Your task to perform on an android device: turn notification dots on Image 0: 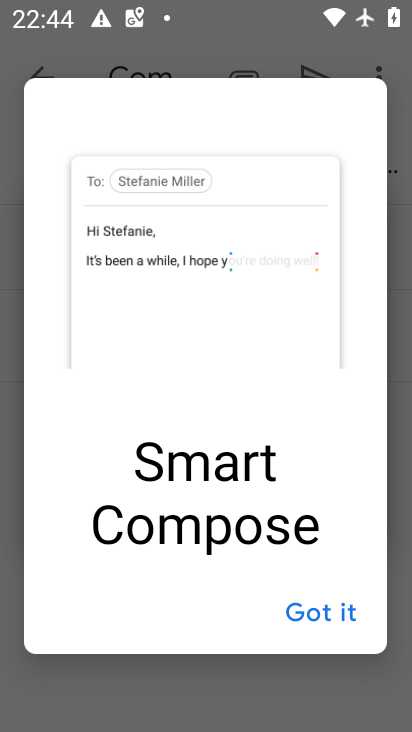
Step 0: press home button
Your task to perform on an android device: turn notification dots on Image 1: 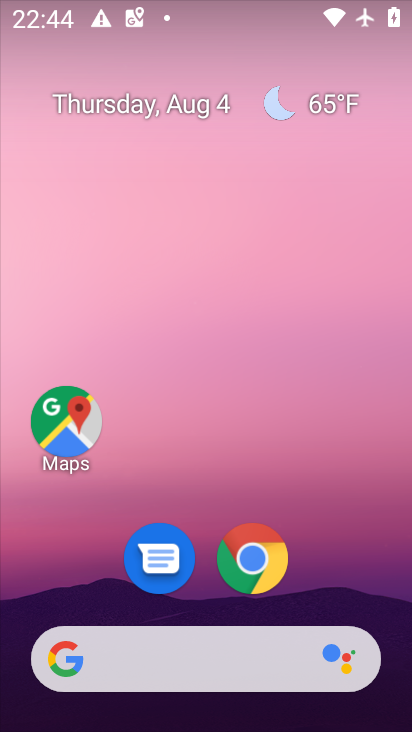
Step 1: drag from (363, 515) to (342, 70)
Your task to perform on an android device: turn notification dots on Image 2: 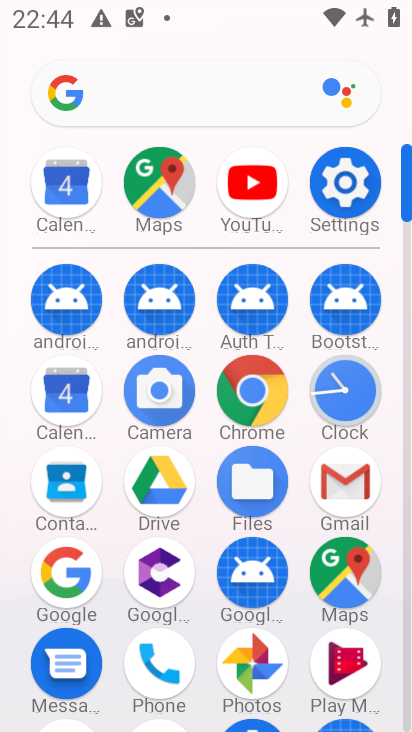
Step 2: click (359, 172)
Your task to perform on an android device: turn notification dots on Image 3: 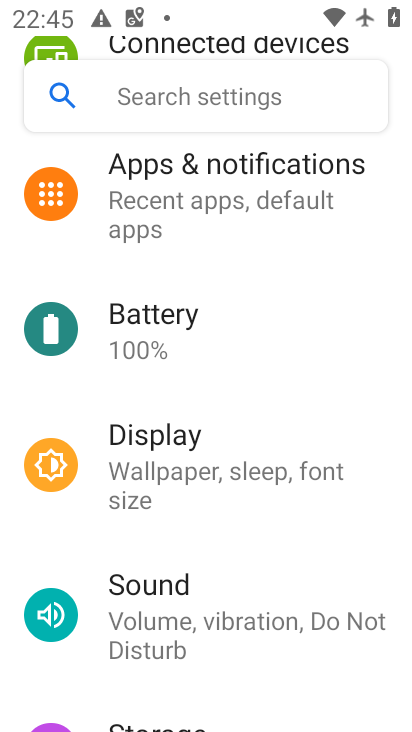
Step 3: drag from (270, 421) to (283, 609)
Your task to perform on an android device: turn notification dots on Image 4: 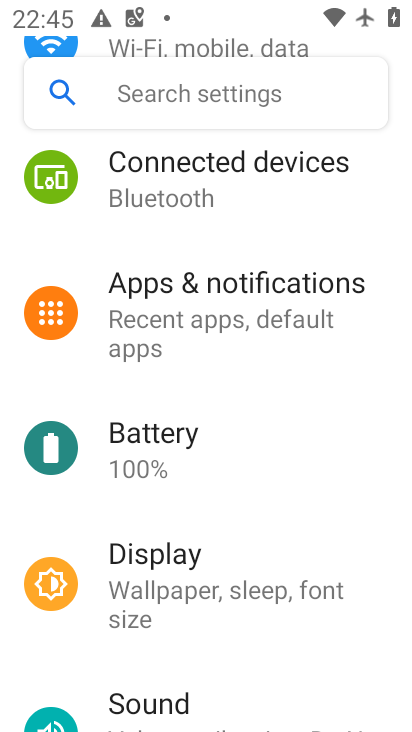
Step 4: click (286, 324)
Your task to perform on an android device: turn notification dots on Image 5: 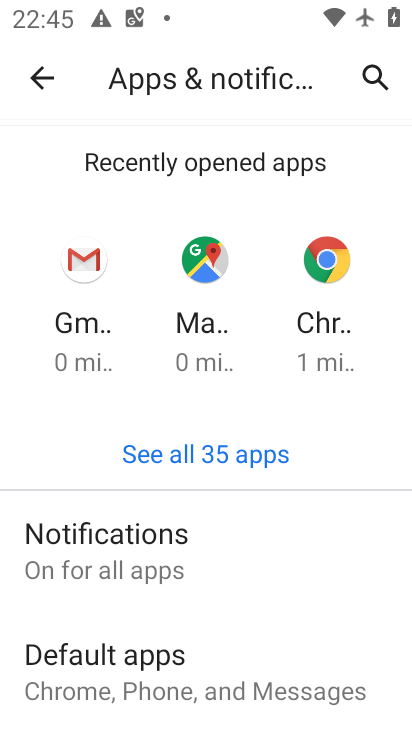
Step 5: click (163, 540)
Your task to perform on an android device: turn notification dots on Image 6: 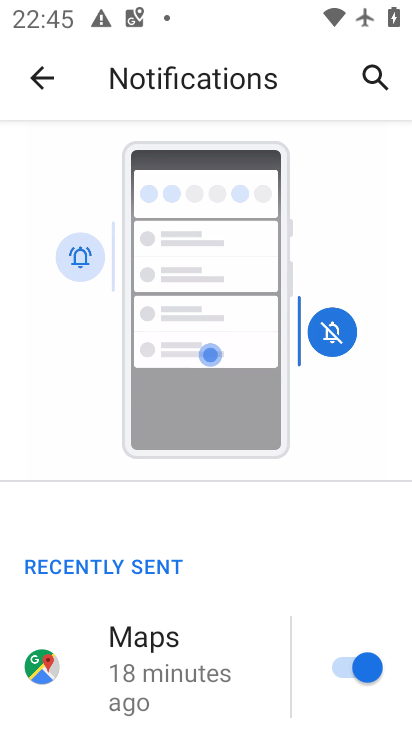
Step 6: drag from (216, 469) to (247, 122)
Your task to perform on an android device: turn notification dots on Image 7: 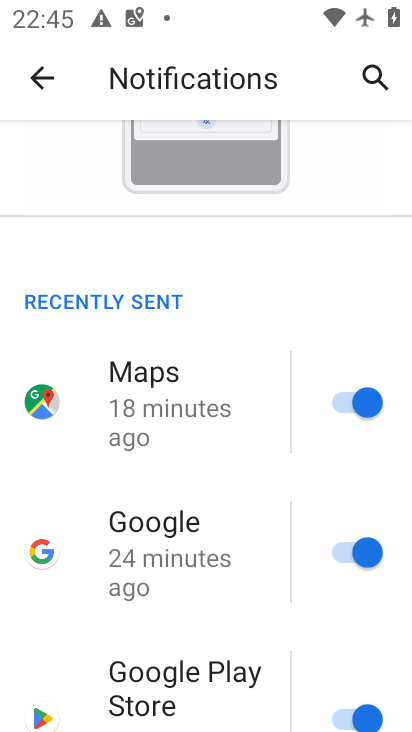
Step 7: drag from (243, 329) to (321, 45)
Your task to perform on an android device: turn notification dots on Image 8: 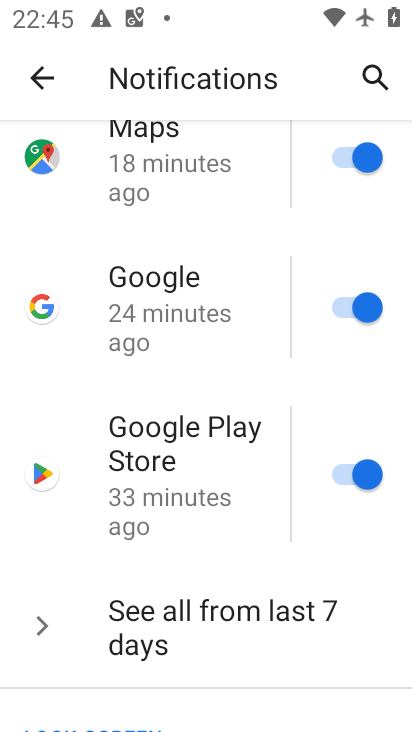
Step 8: drag from (294, 670) to (332, 141)
Your task to perform on an android device: turn notification dots on Image 9: 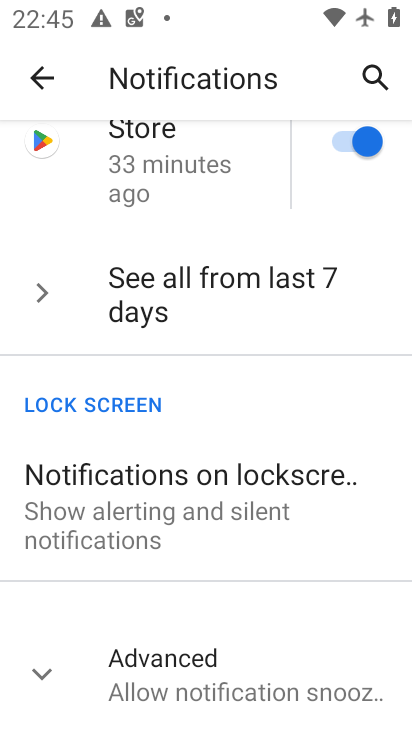
Step 9: click (194, 630)
Your task to perform on an android device: turn notification dots on Image 10: 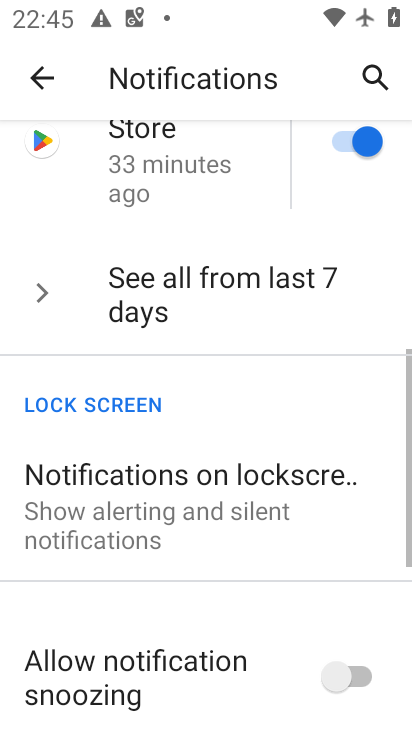
Step 10: drag from (308, 634) to (335, 215)
Your task to perform on an android device: turn notification dots on Image 11: 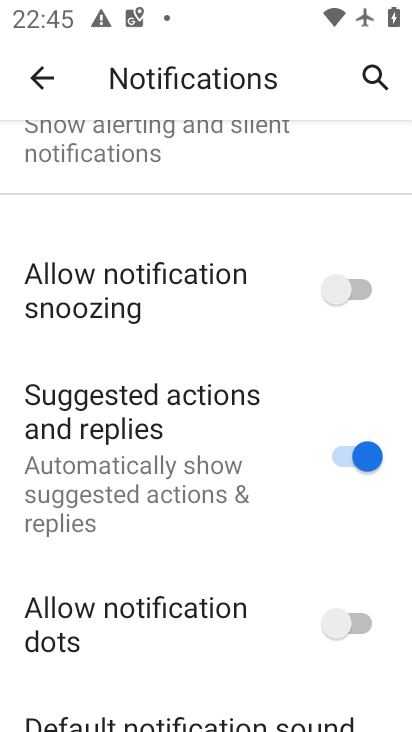
Step 11: click (360, 620)
Your task to perform on an android device: turn notification dots on Image 12: 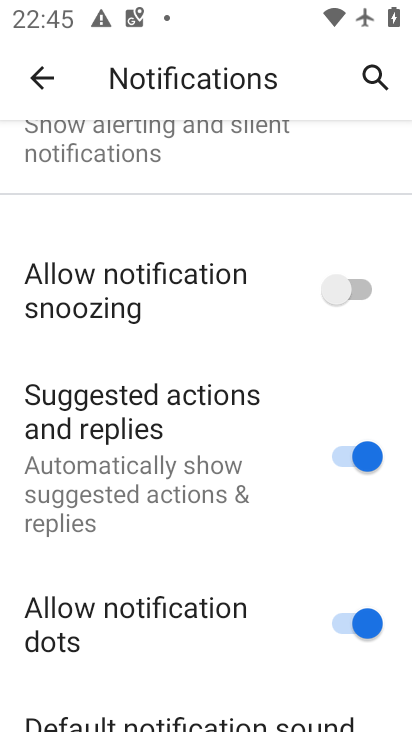
Step 12: task complete